Your task to perform on an android device: turn on notifications settings in the gmail app Image 0: 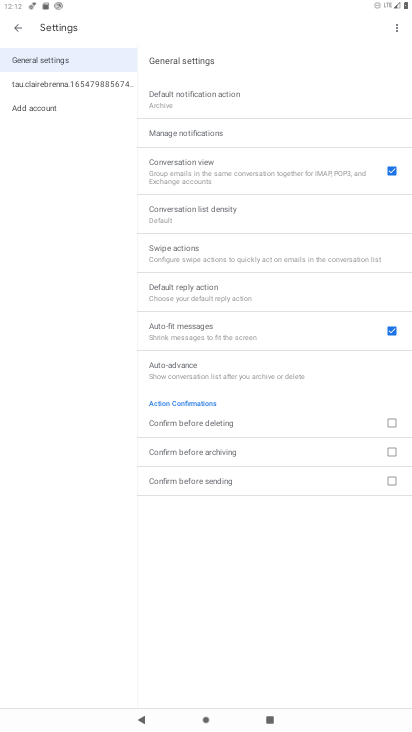
Step 0: press home button
Your task to perform on an android device: turn on notifications settings in the gmail app Image 1: 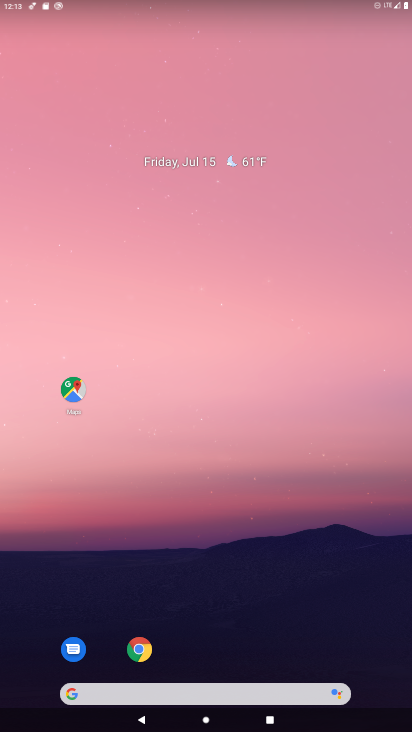
Step 1: drag from (249, 679) to (286, 28)
Your task to perform on an android device: turn on notifications settings in the gmail app Image 2: 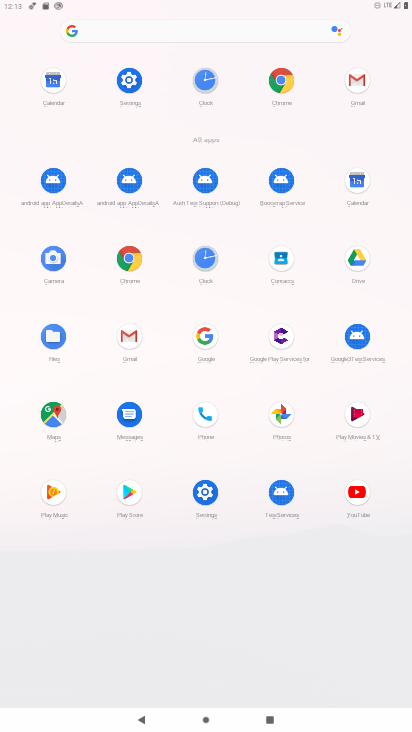
Step 2: click (352, 83)
Your task to perform on an android device: turn on notifications settings in the gmail app Image 3: 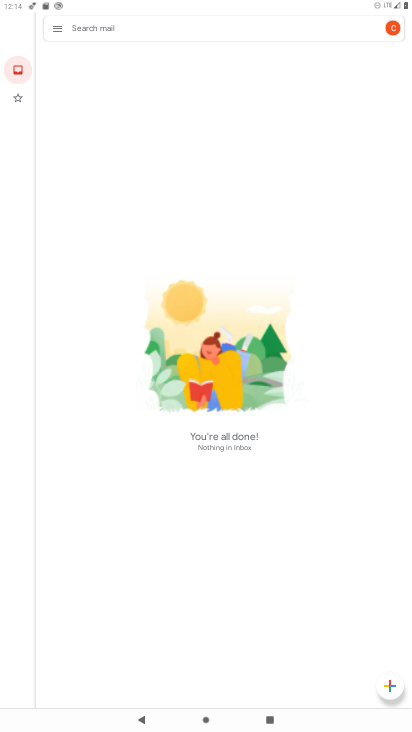
Step 3: click (57, 29)
Your task to perform on an android device: turn on notifications settings in the gmail app Image 4: 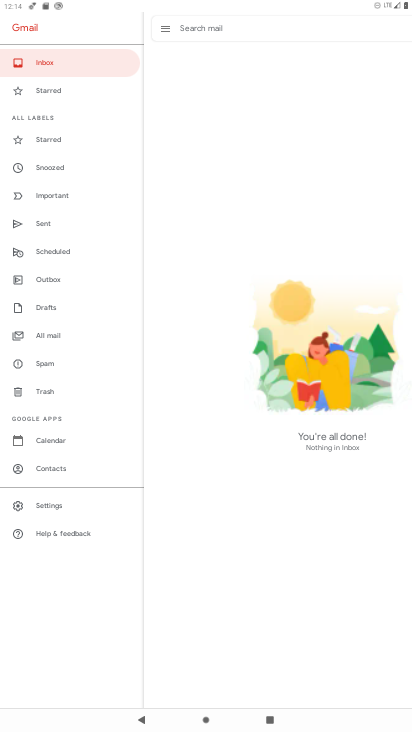
Step 4: click (55, 506)
Your task to perform on an android device: turn on notifications settings in the gmail app Image 5: 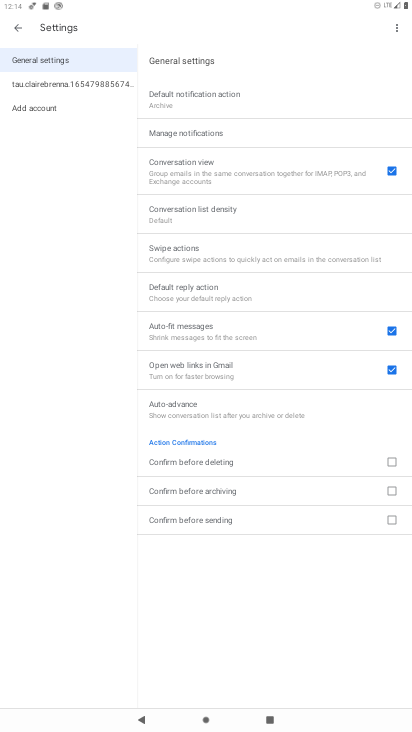
Step 5: click (180, 62)
Your task to perform on an android device: turn on notifications settings in the gmail app Image 6: 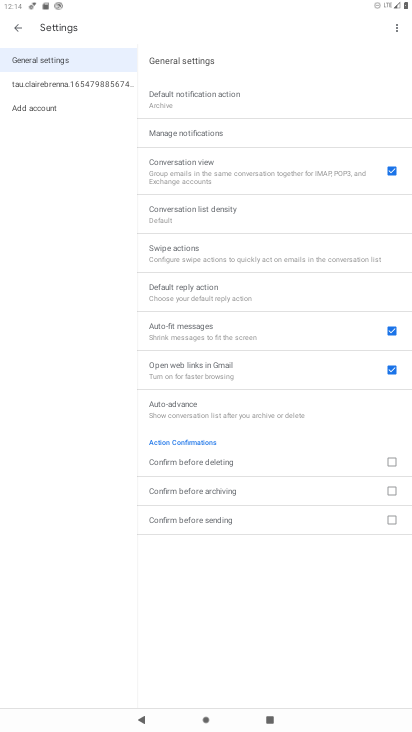
Step 6: click (181, 127)
Your task to perform on an android device: turn on notifications settings in the gmail app Image 7: 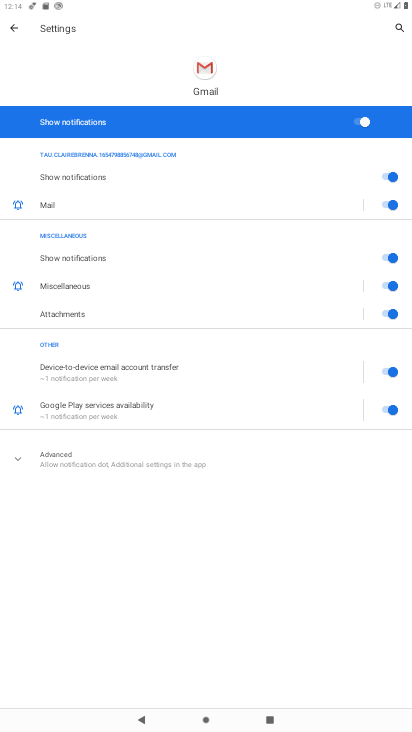
Step 7: task complete